Your task to perform on an android device: See recent photos Image 0: 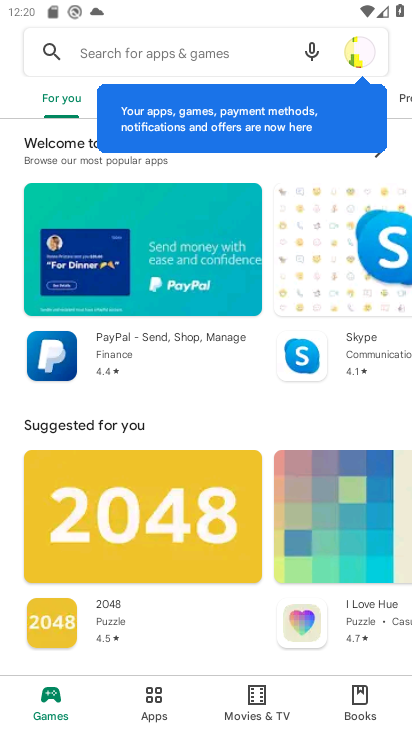
Step 0: press home button
Your task to perform on an android device: See recent photos Image 1: 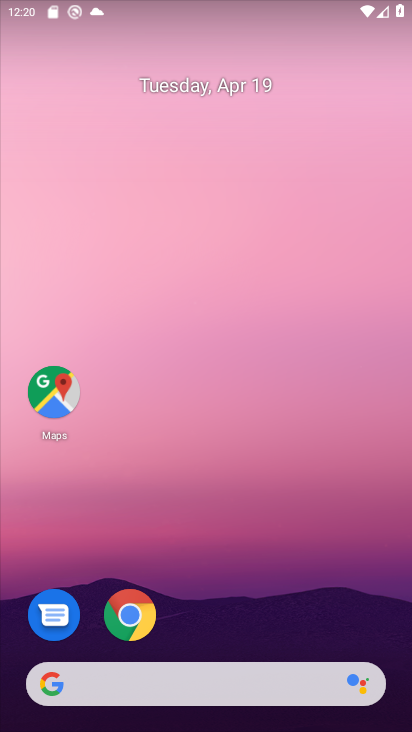
Step 1: drag from (194, 655) to (262, 249)
Your task to perform on an android device: See recent photos Image 2: 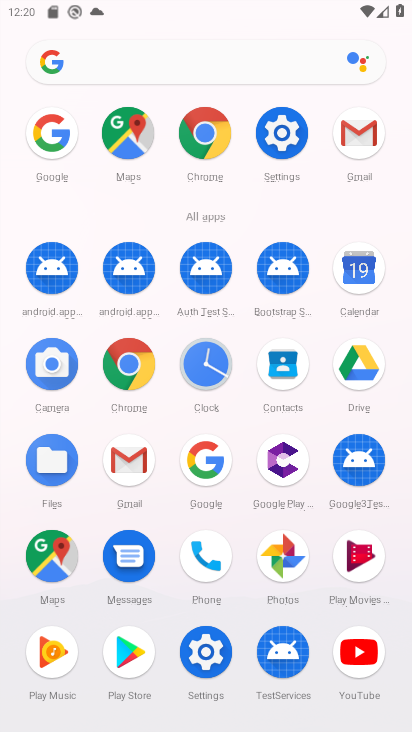
Step 2: click (286, 553)
Your task to perform on an android device: See recent photos Image 3: 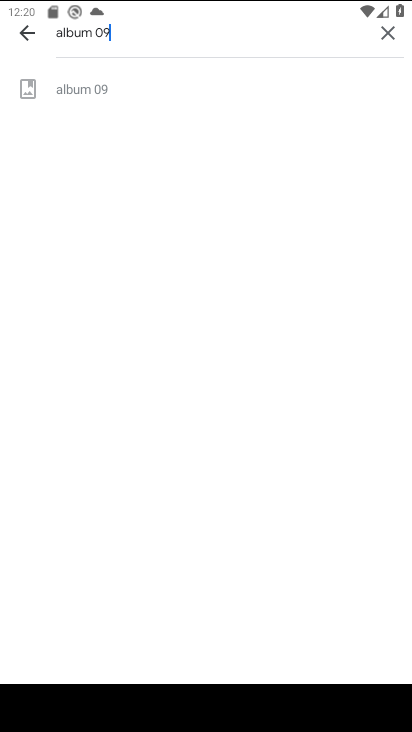
Step 3: click (388, 34)
Your task to perform on an android device: See recent photos Image 4: 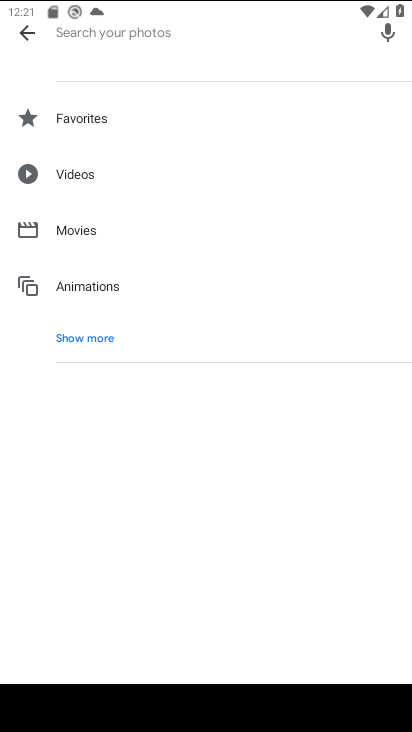
Step 4: press back button
Your task to perform on an android device: See recent photos Image 5: 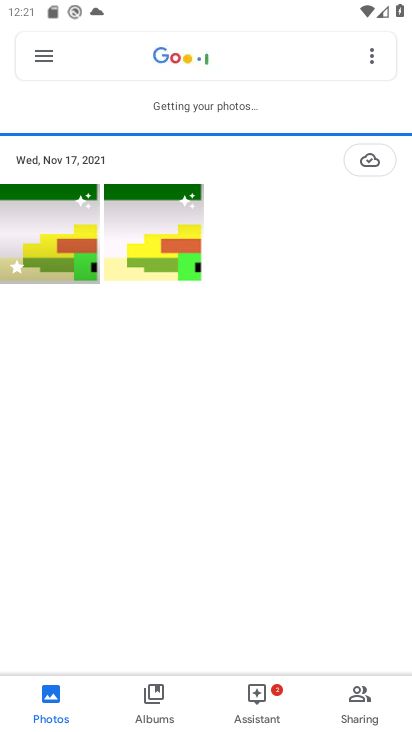
Step 5: click (66, 222)
Your task to perform on an android device: See recent photos Image 6: 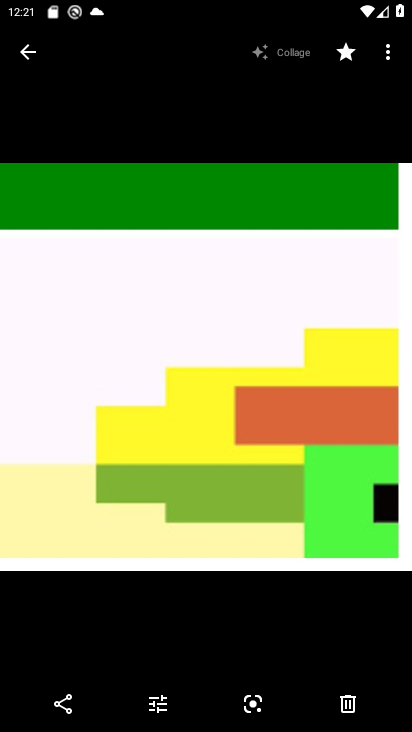
Step 6: task complete